Your task to perform on an android device: turn pop-ups on in chrome Image 0: 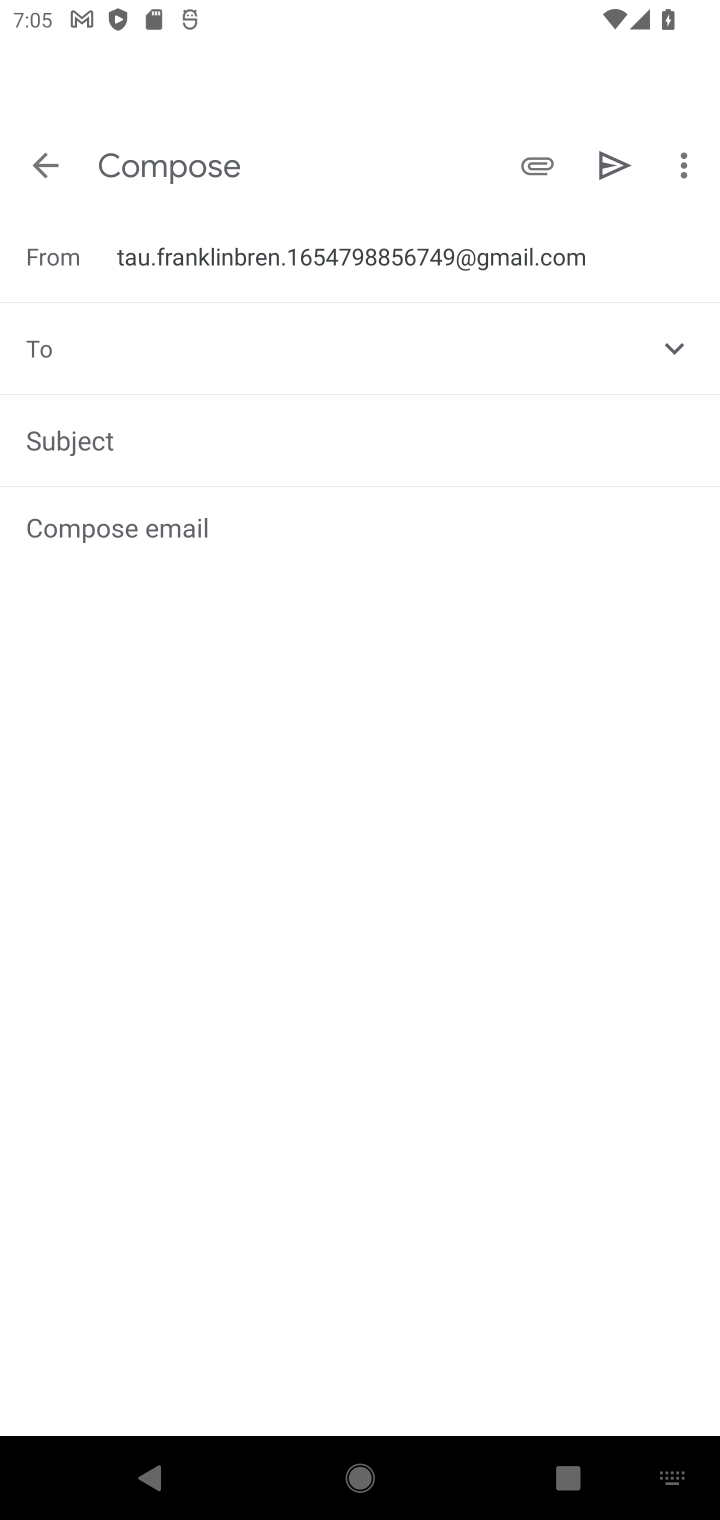
Step 0: press home button
Your task to perform on an android device: turn pop-ups on in chrome Image 1: 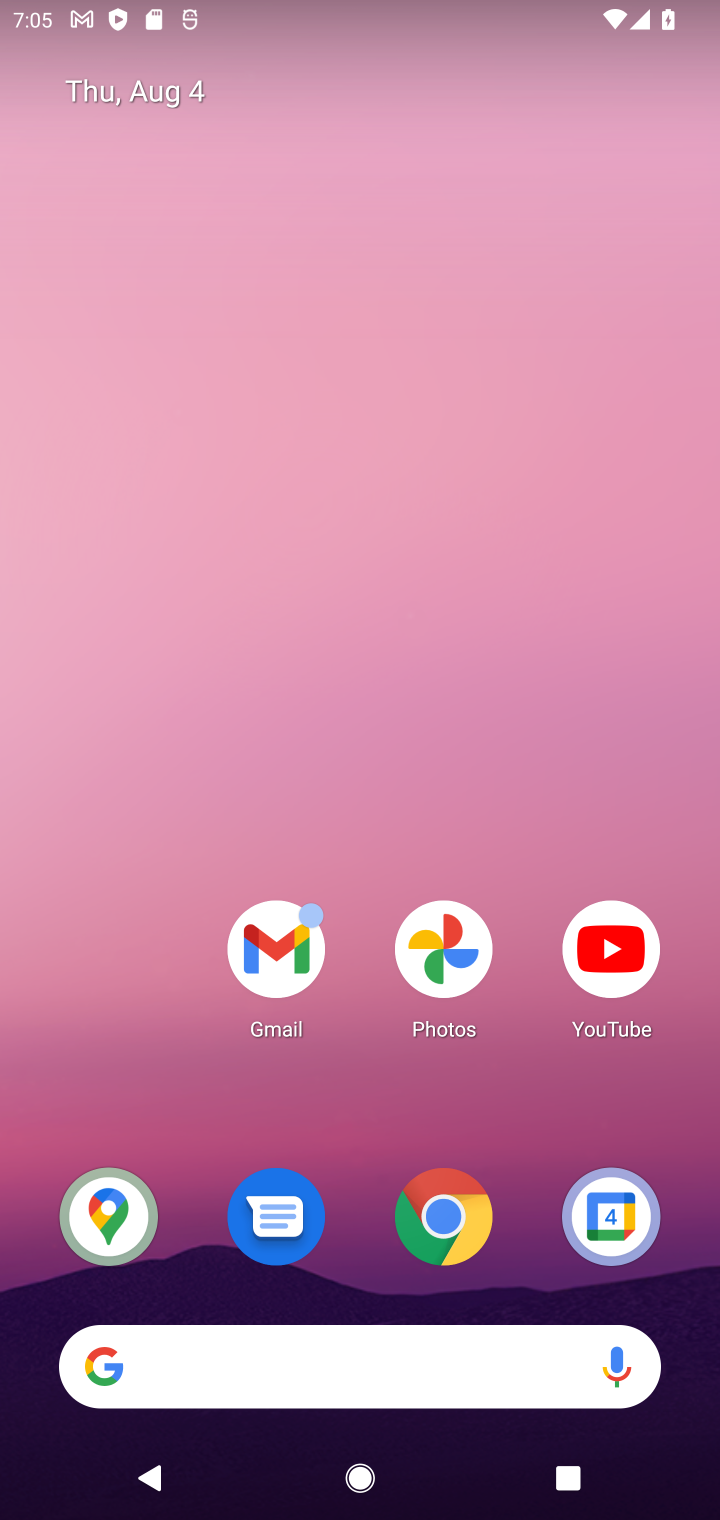
Step 1: click (437, 1212)
Your task to perform on an android device: turn pop-ups on in chrome Image 2: 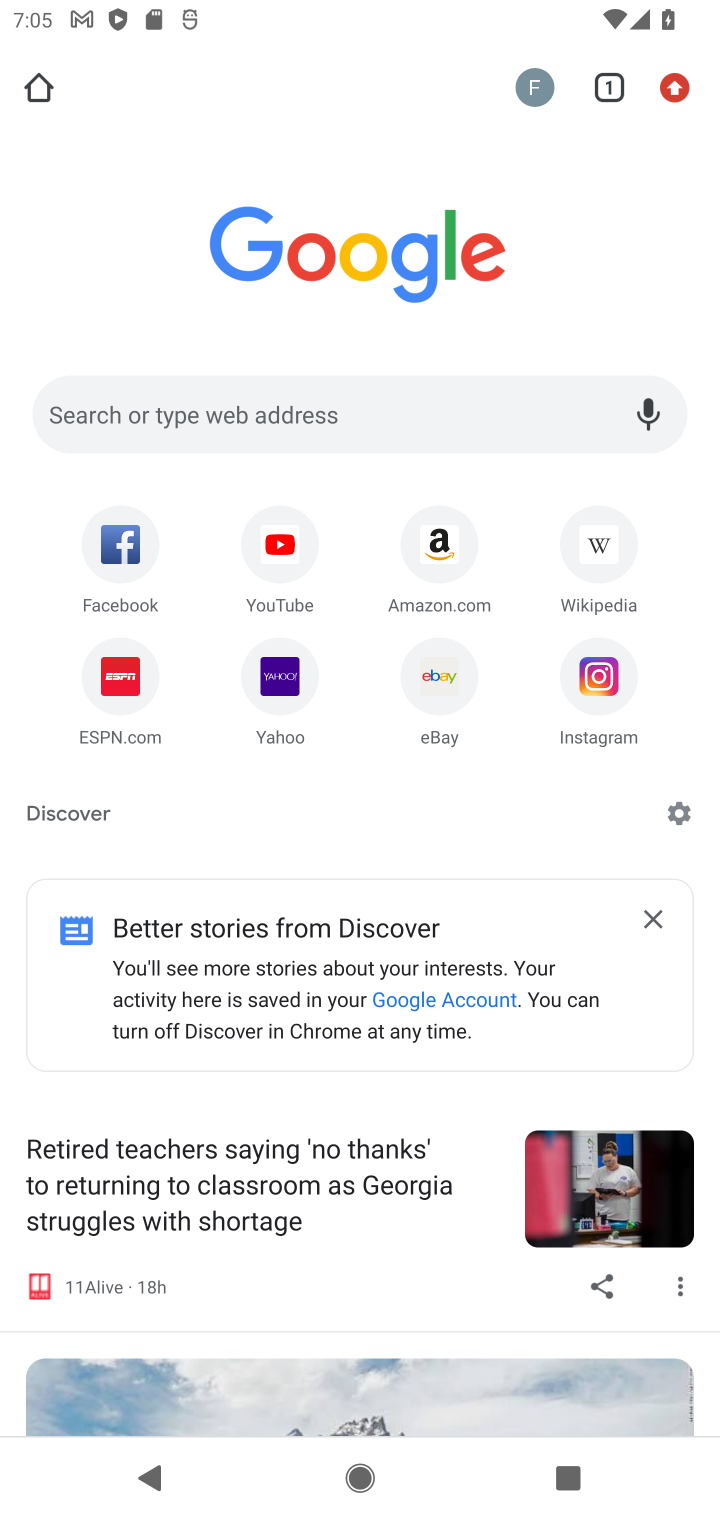
Step 2: click (675, 88)
Your task to perform on an android device: turn pop-ups on in chrome Image 3: 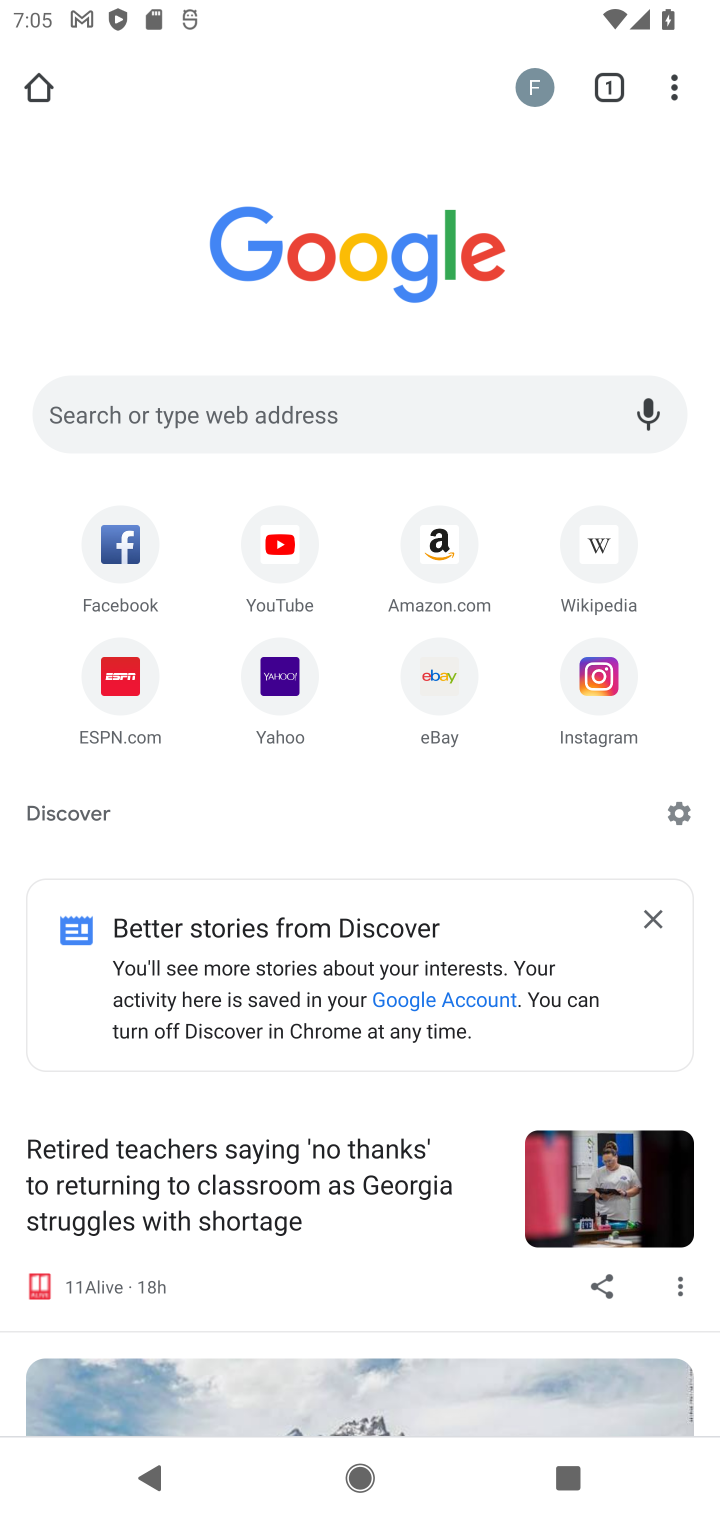
Step 3: click (673, 101)
Your task to perform on an android device: turn pop-ups on in chrome Image 4: 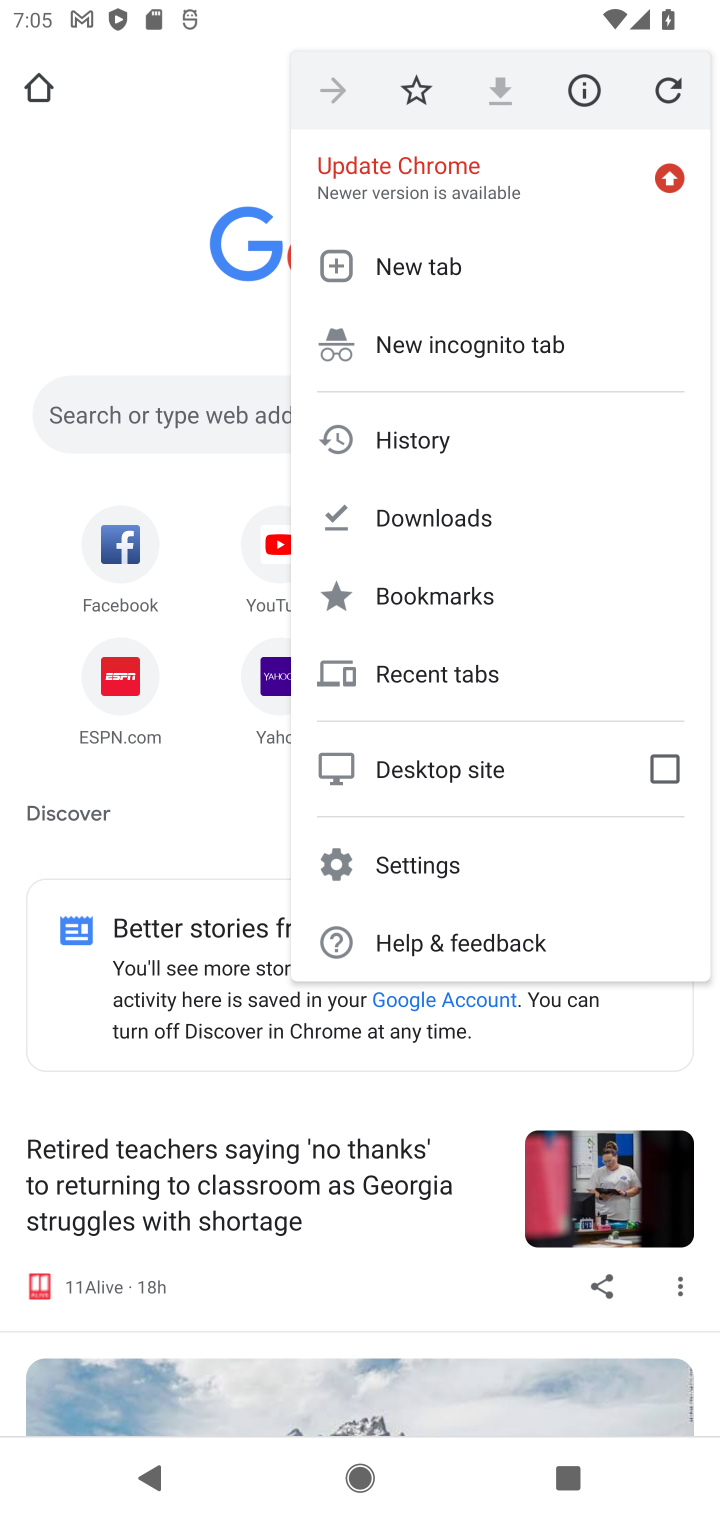
Step 4: click (436, 866)
Your task to perform on an android device: turn pop-ups on in chrome Image 5: 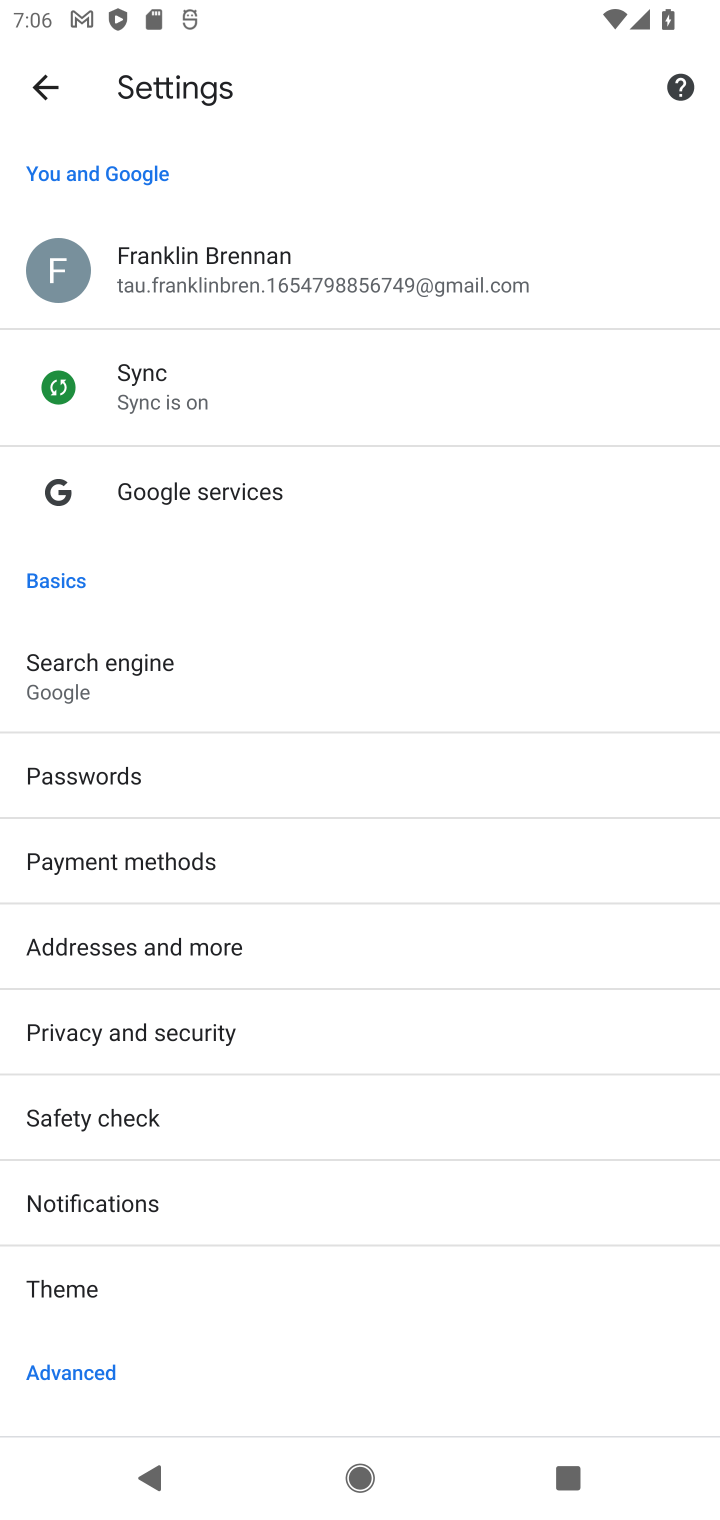
Step 5: drag from (263, 1321) to (289, 451)
Your task to perform on an android device: turn pop-ups on in chrome Image 6: 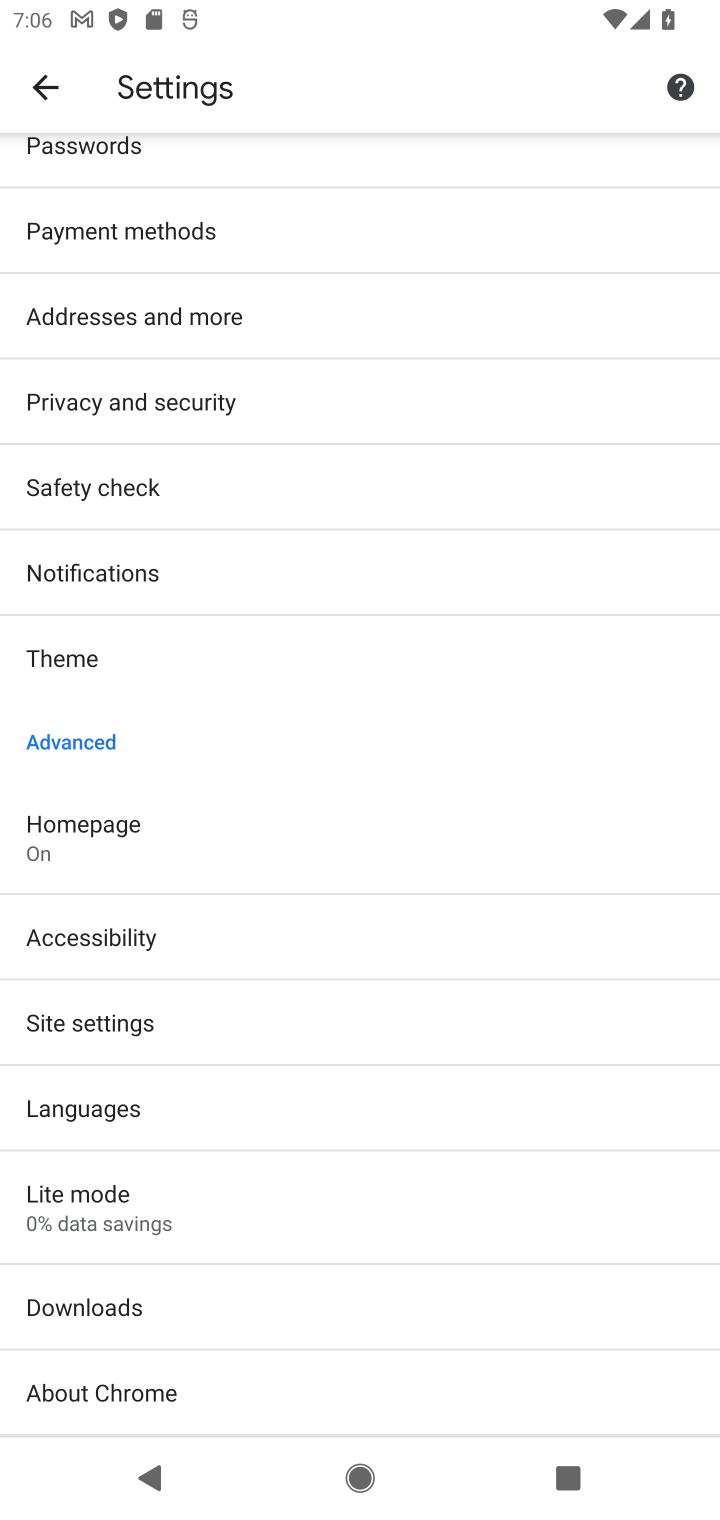
Step 6: click (132, 1024)
Your task to perform on an android device: turn pop-ups on in chrome Image 7: 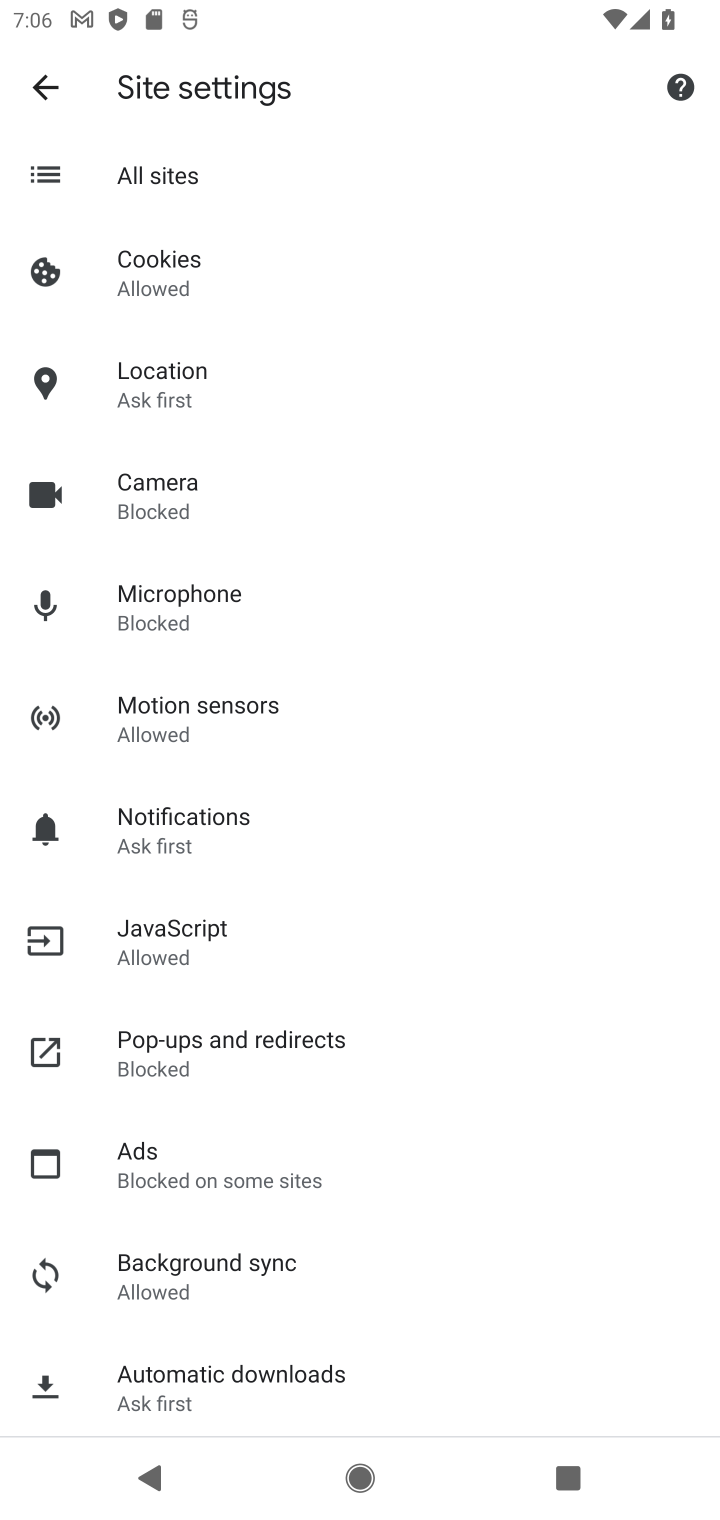
Step 7: click (142, 1048)
Your task to perform on an android device: turn pop-ups on in chrome Image 8: 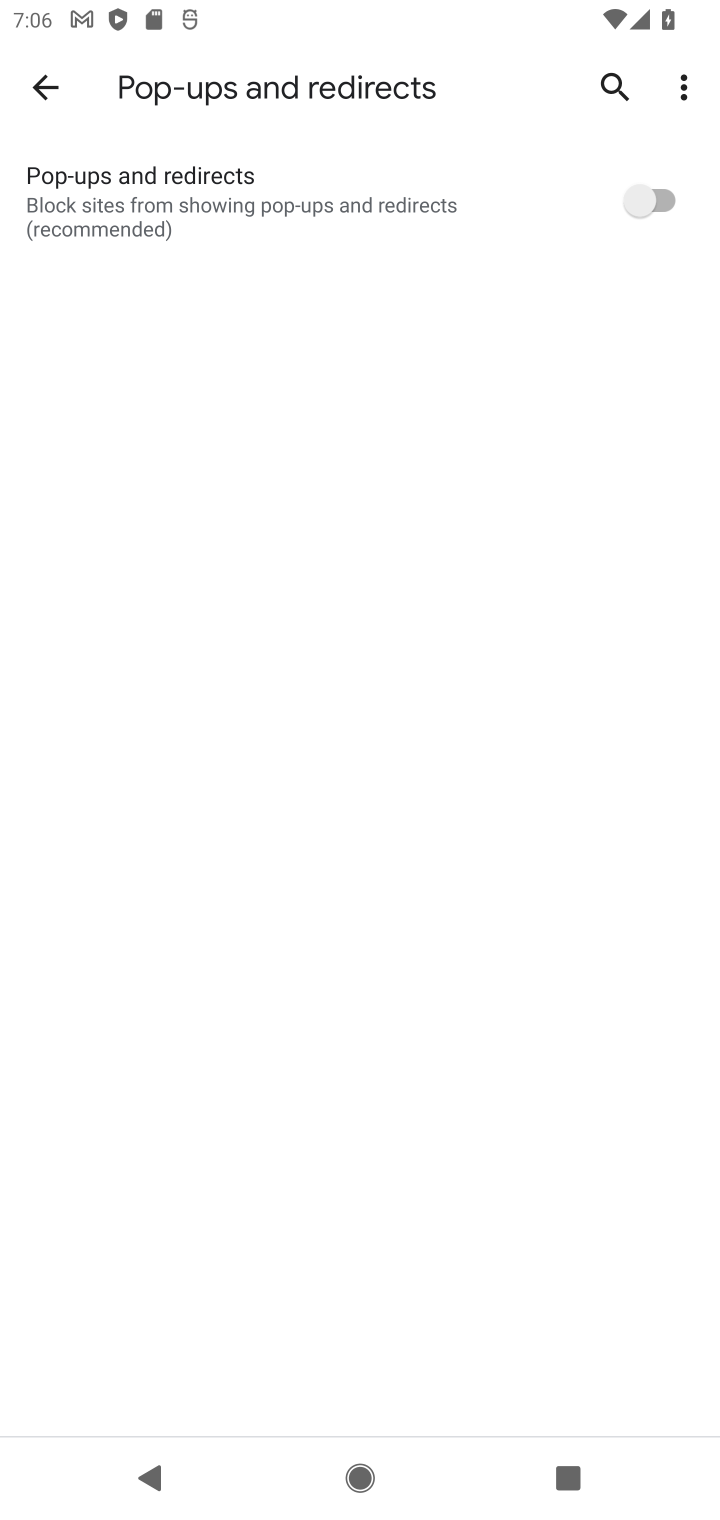
Step 8: click (680, 189)
Your task to perform on an android device: turn pop-ups on in chrome Image 9: 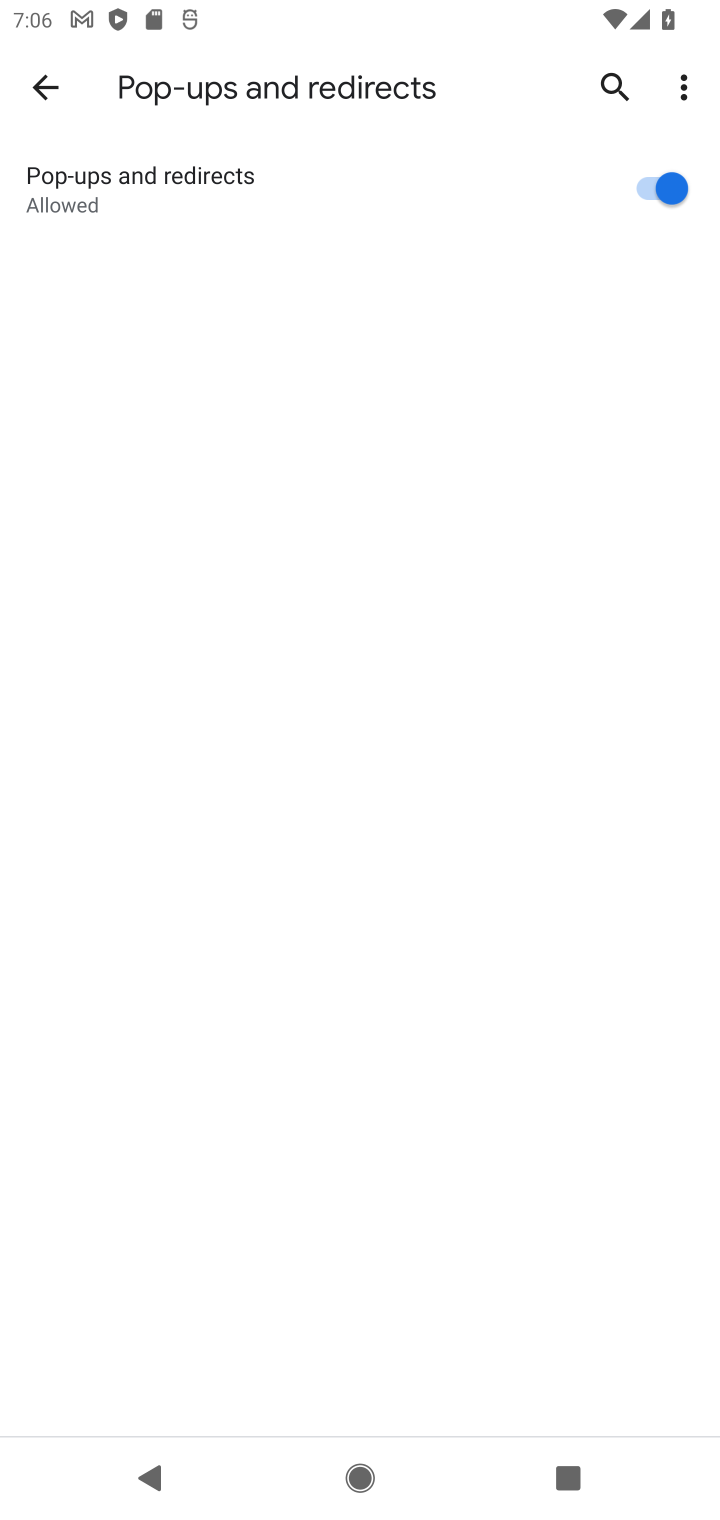
Step 9: task complete